Your task to perform on an android device: check storage Image 0: 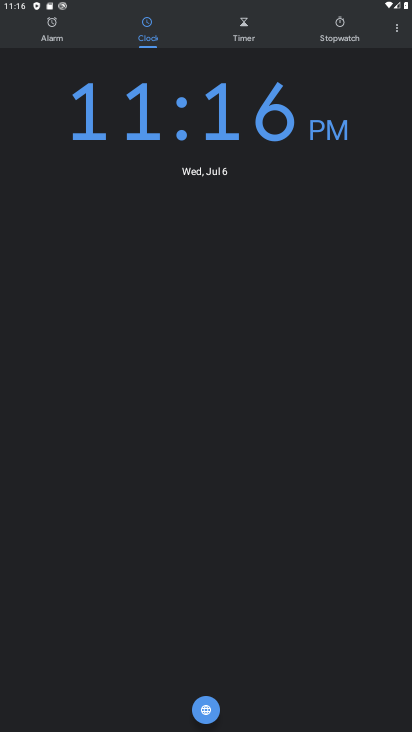
Step 0: press home button
Your task to perform on an android device: check storage Image 1: 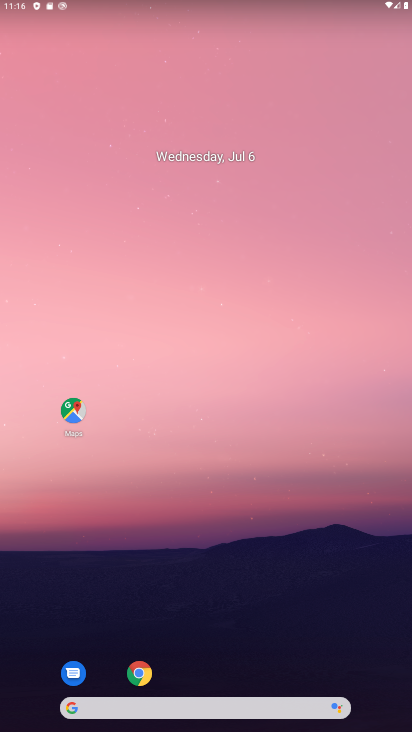
Step 1: drag from (262, 601) to (190, 231)
Your task to perform on an android device: check storage Image 2: 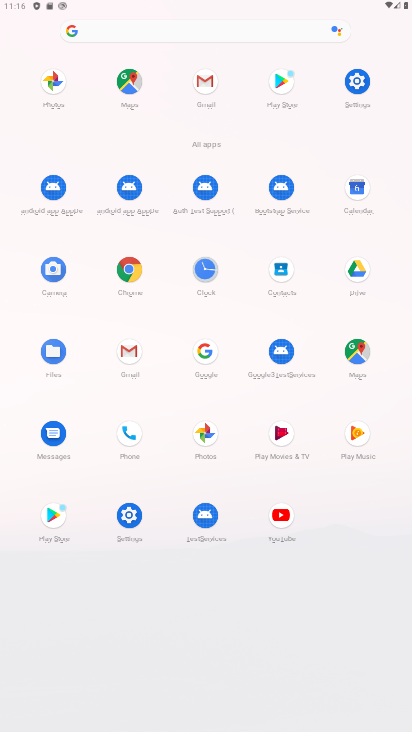
Step 2: click (356, 82)
Your task to perform on an android device: check storage Image 3: 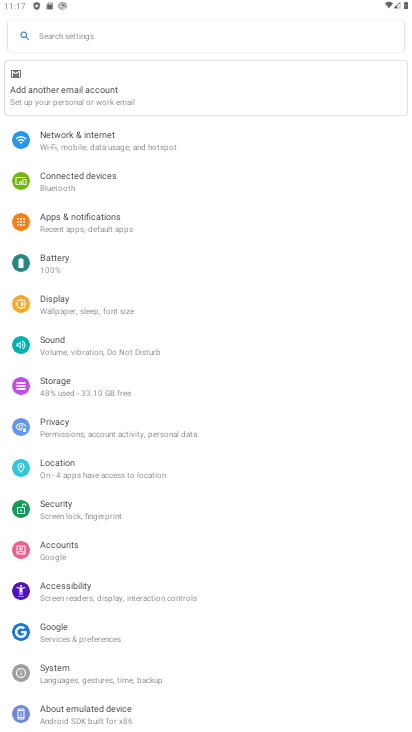
Step 3: click (57, 380)
Your task to perform on an android device: check storage Image 4: 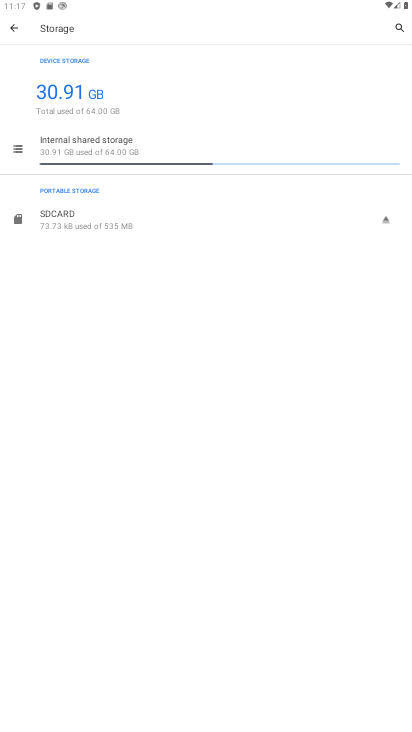
Step 4: task complete